Your task to perform on an android device: Open the web browser Image 0: 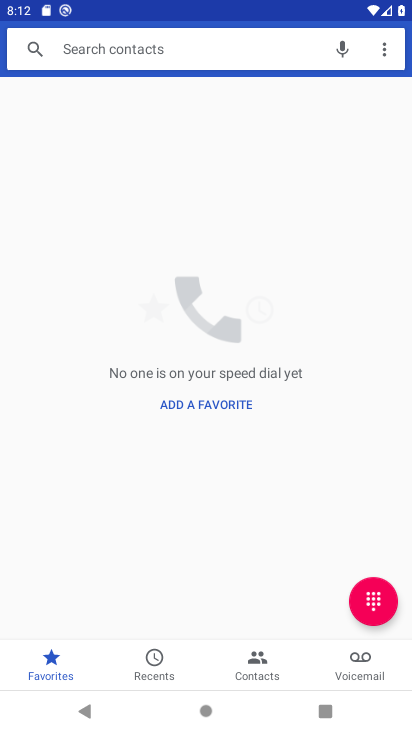
Step 0: press home button
Your task to perform on an android device: Open the web browser Image 1: 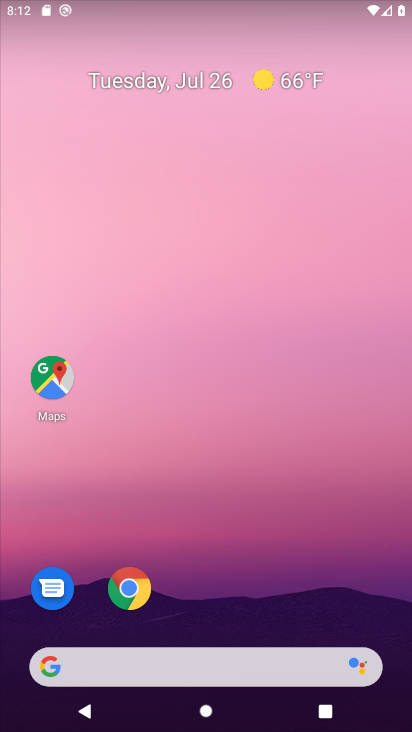
Step 1: drag from (227, 724) to (228, 205)
Your task to perform on an android device: Open the web browser Image 2: 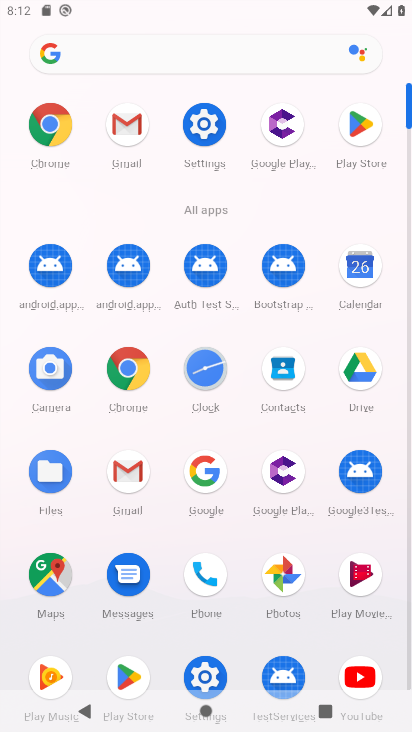
Step 2: click (120, 362)
Your task to perform on an android device: Open the web browser Image 3: 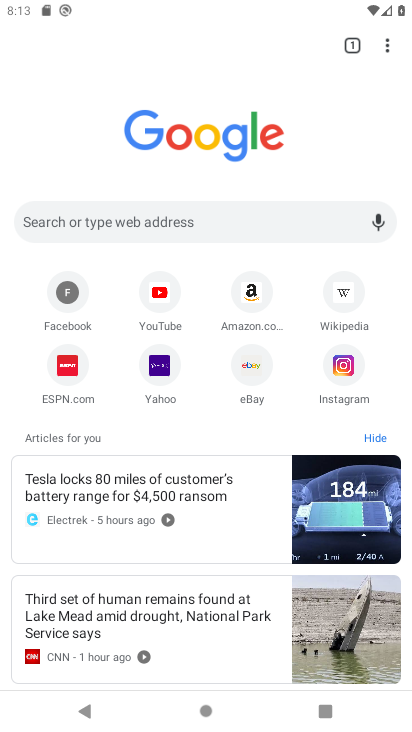
Step 3: task complete